Your task to perform on an android device: Open settings Image 0: 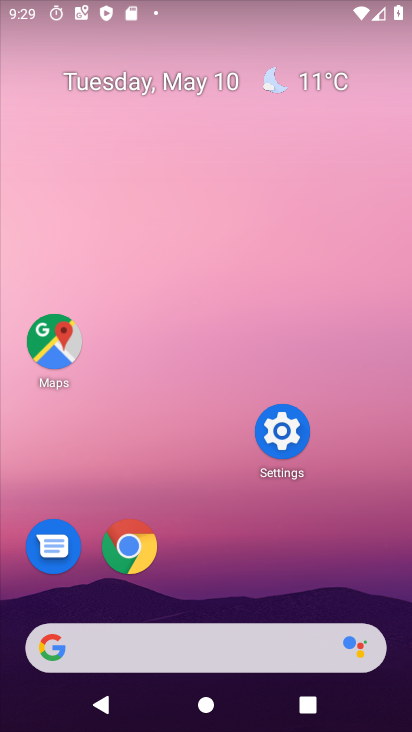
Step 0: click (288, 429)
Your task to perform on an android device: Open settings Image 1: 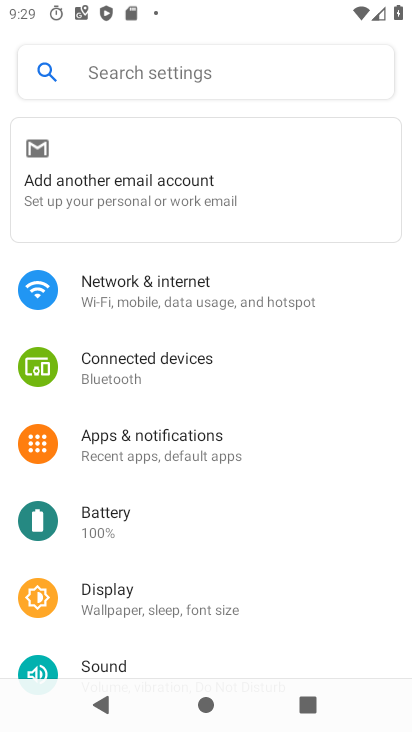
Step 1: task complete